Your task to perform on an android device: Open Google Maps and go to "Timeline" Image 0: 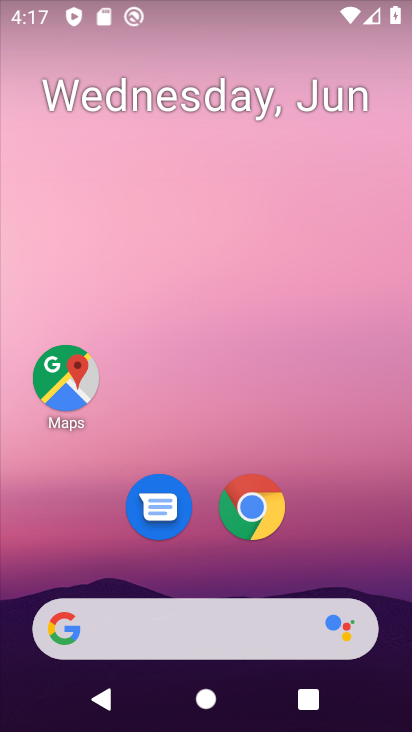
Step 0: click (69, 402)
Your task to perform on an android device: Open Google Maps and go to "Timeline" Image 1: 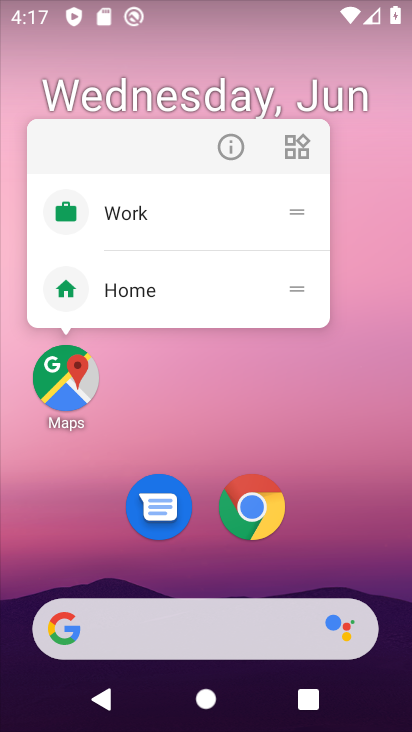
Step 1: click (65, 399)
Your task to perform on an android device: Open Google Maps and go to "Timeline" Image 2: 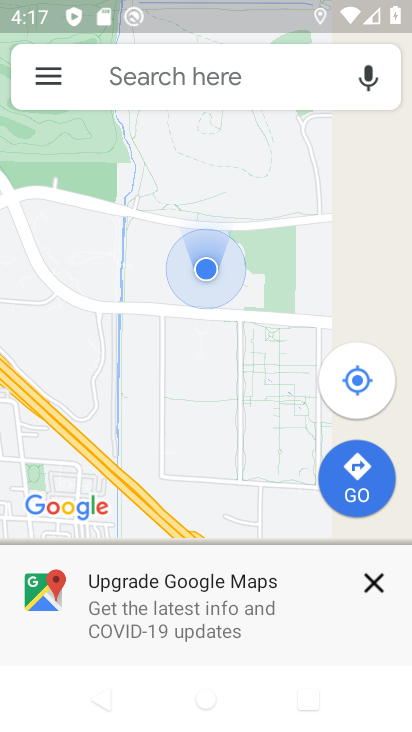
Step 2: click (54, 71)
Your task to perform on an android device: Open Google Maps and go to "Timeline" Image 3: 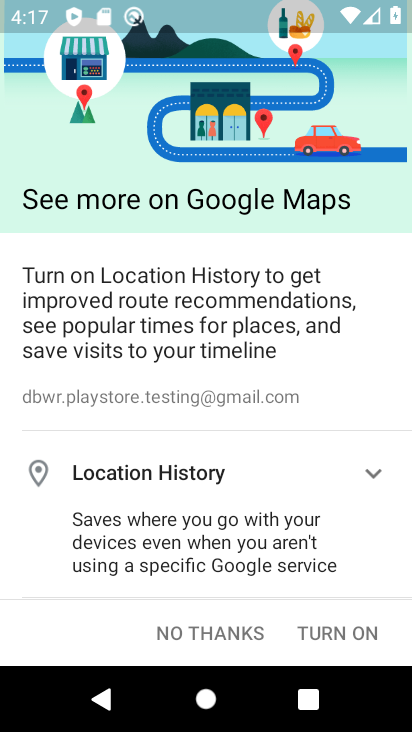
Step 3: click (246, 635)
Your task to perform on an android device: Open Google Maps and go to "Timeline" Image 4: 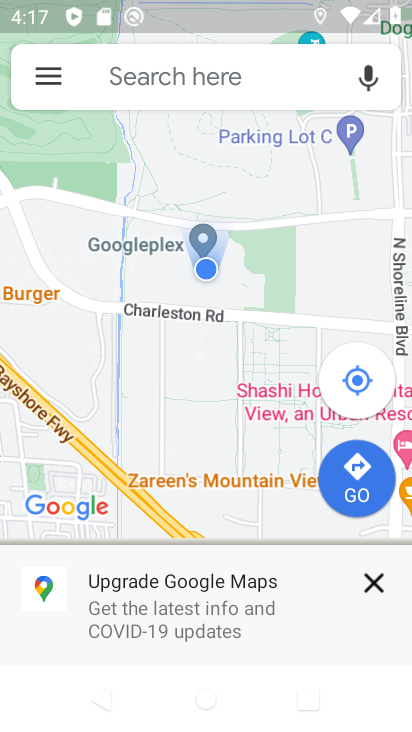
Step 4: click (59, 84)
Your task to perform on an android device: Open Google Maps and go to "Timeline" Image 5: 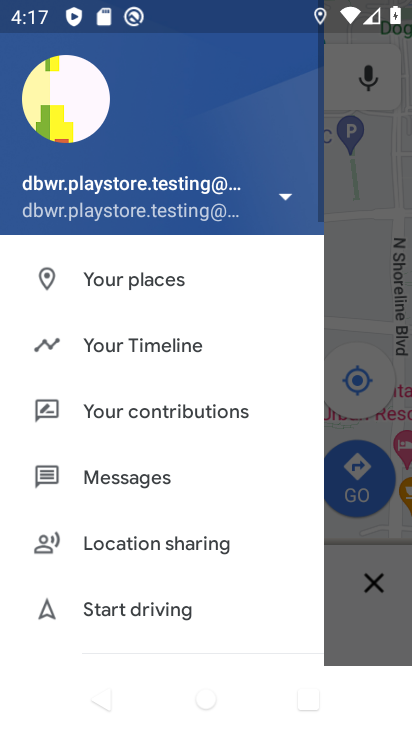
Step 5: click (177, 349)
Your task to perform on an android device: Open Google Maps and go to "Timeline" Image 6: 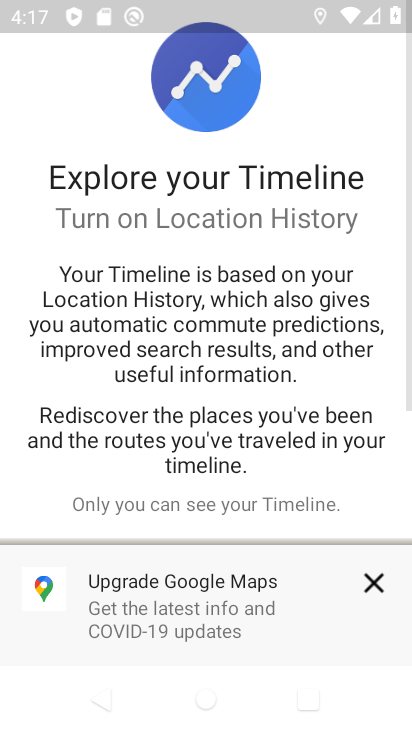
Step 6: click (366, 583)
Your task to perform on an android device: Open Google Maps and go to "Timeline" Image 7: 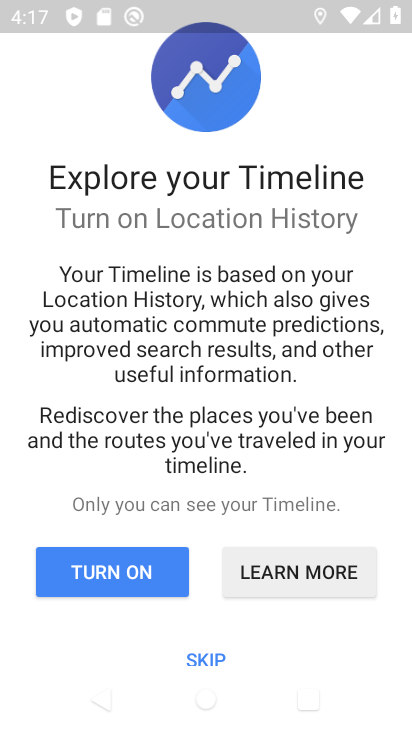
Step 7: click (226, 670)
Your task to perform on an android device: Open Google Maps and go to "Timeline" Image 8: 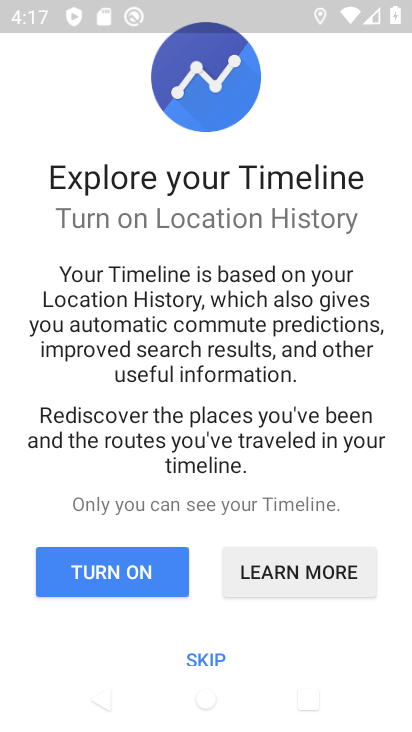
Step 8: click (221, 664)
Your task to perform on an android device: Open Google Maps and go to "Timeline" Image 9: 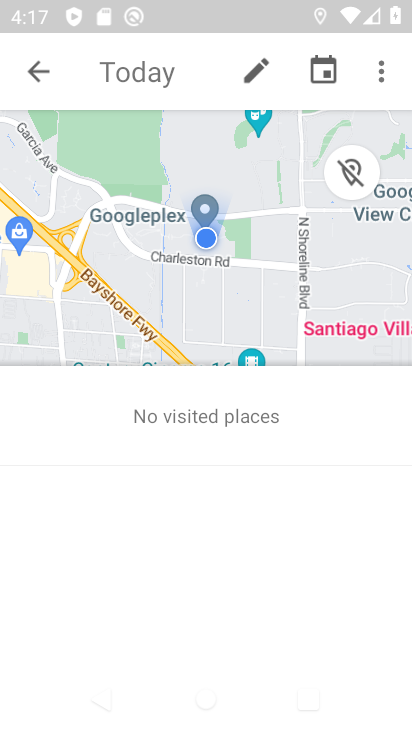
Step 9: task complete